Your task to perform on an android device: Go to wifi settings Image 0: 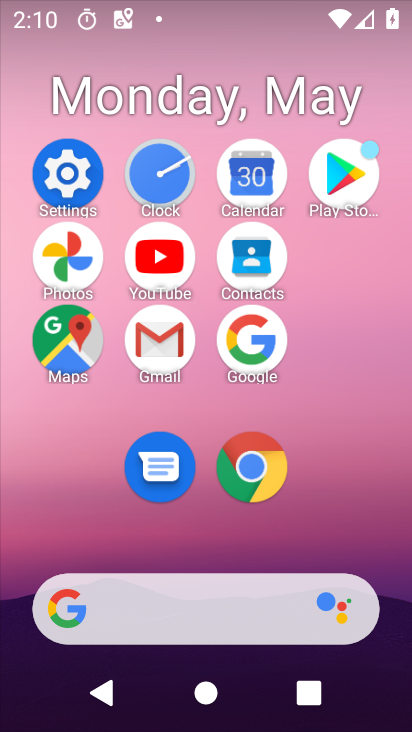
Step 0: click (72, 178)
Your task to perform on an android device: Go to wifi settings Image 1: 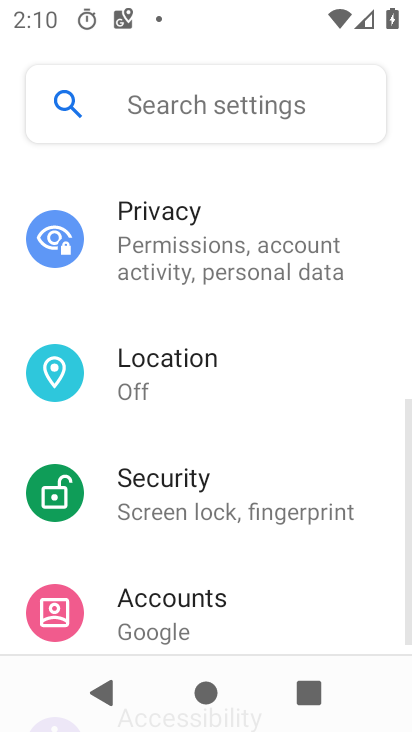
Step 1: drag from (273, 173) to (239, 521)
Your task to perform on an android device: Go to wifi settings Image 2: 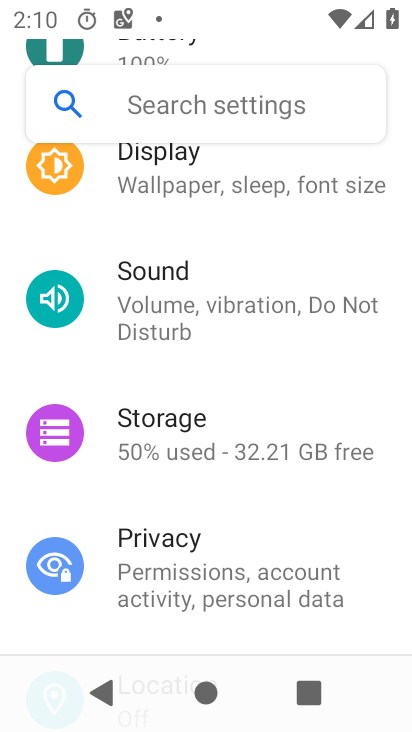
Step 2: drag from (317, 287) to (256, 502)
Your task to perform on an android device: Go to wifi settings Image 3: 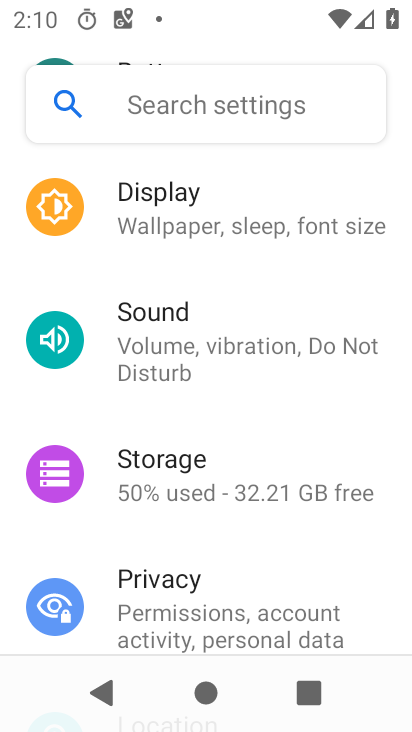
Step 3: drag from (327, 197) to (255, 486)
Your task to perform on an android device: Go to wifi settings Image 4: 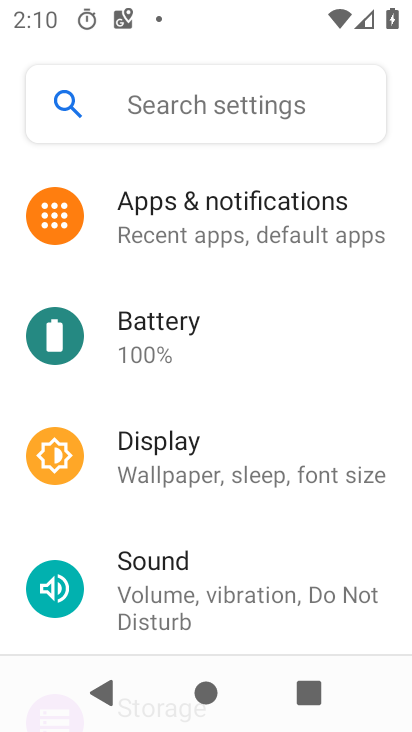
Step 4: drag from (302, 258) to (257, 558)
Your task to perform on an android device: Go to wifi settings Image 5: 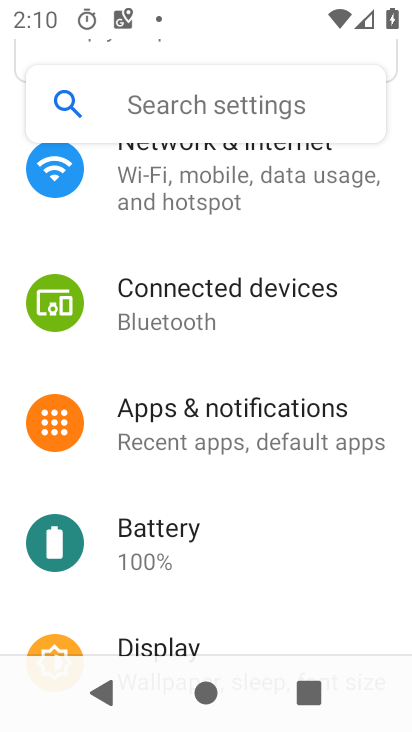
Step 5: click (278, 185)
Your task to perform on an android device: Go to wifi settings Image 6: 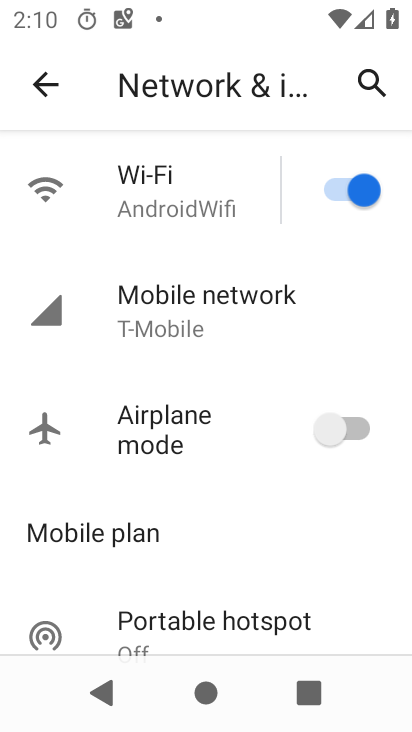
Step 6: click (187, 193)
Your task to perform on an android device: Go to wifi settings Image 7: 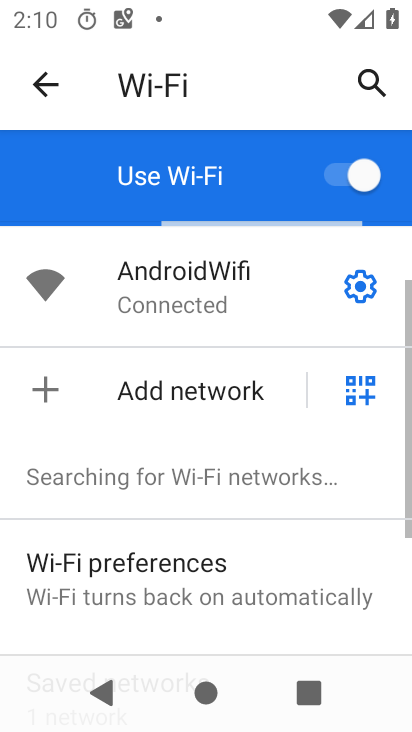
Step 7: click (364, 282)
Your task to perform on an android device: Go to wifi settings Image 8: 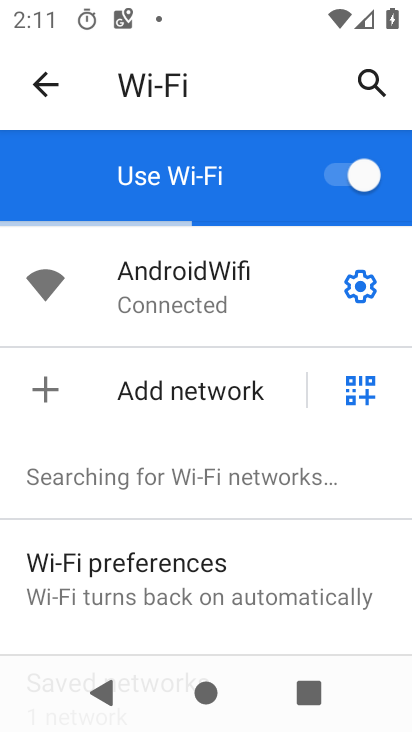
Step 8: click (352, 285)
Your task to perform on an android device: Go to wifi settings Image 9: 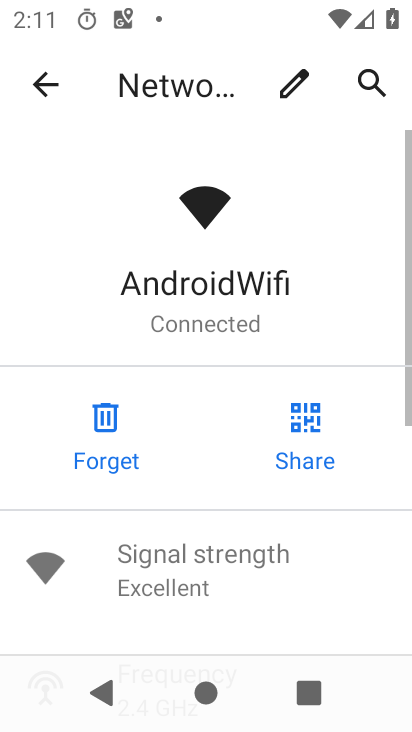
Step 9: task complete